Your task to perform on an android device: Open settings Image 0: 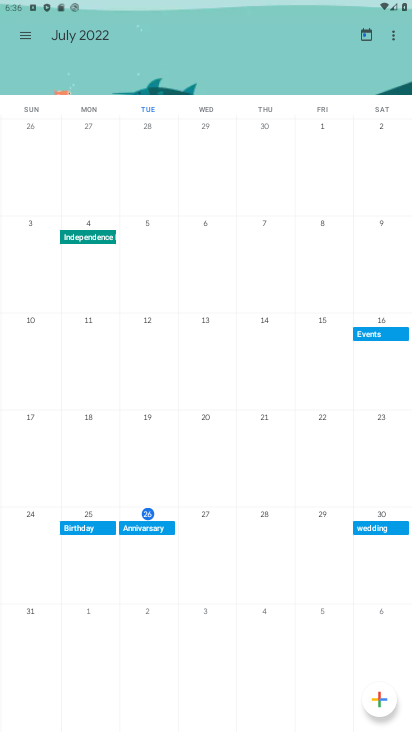
Step 0: press home button
Your task to perform on an android device: Open settings Image 1: 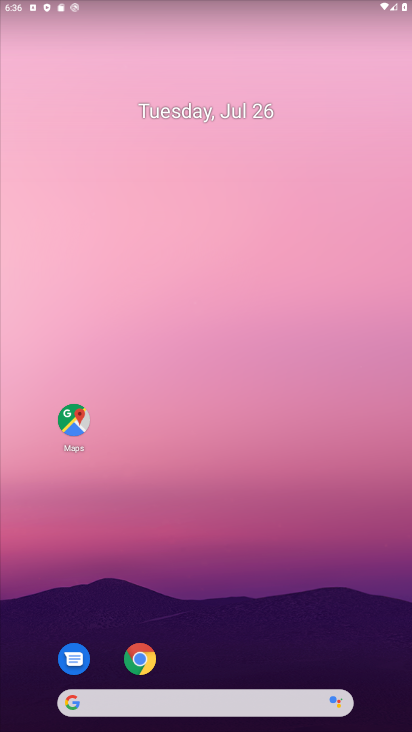
Step 1: drag from (227, 594) to (255, 211)
Your task to perform on an android device: Open settings Image 2: 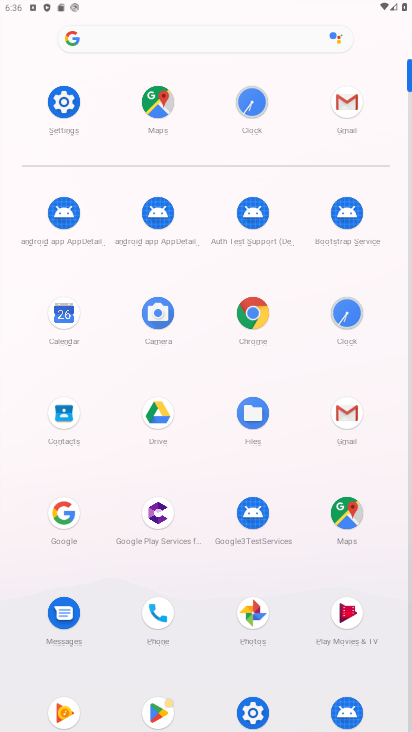
Step 2: click (65, 110)
Your task to perform on an android device: Open settings Image 3: 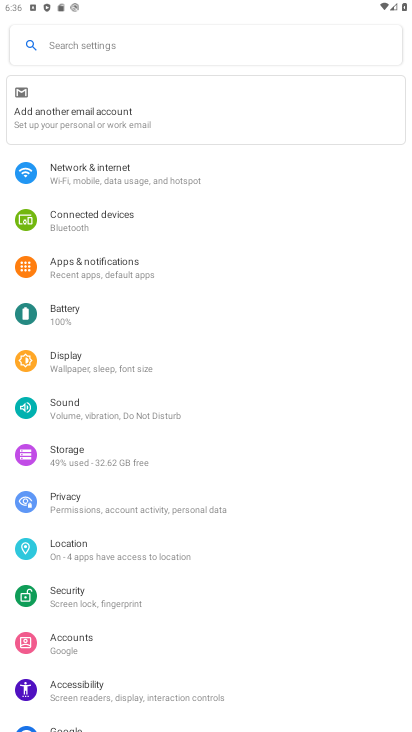
Step 3: task complete